Your task to perform on an android device: open a bookmark in the chrome app Image 0: 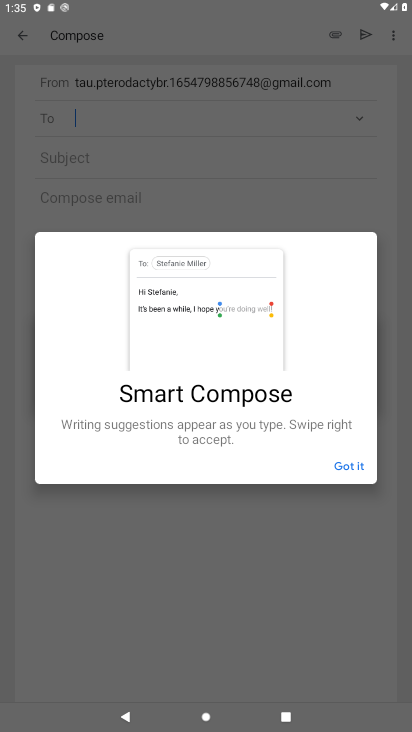
Step 0: press home button
Your task to perform on an android device: open a bookmark in the chrome app Image 1: 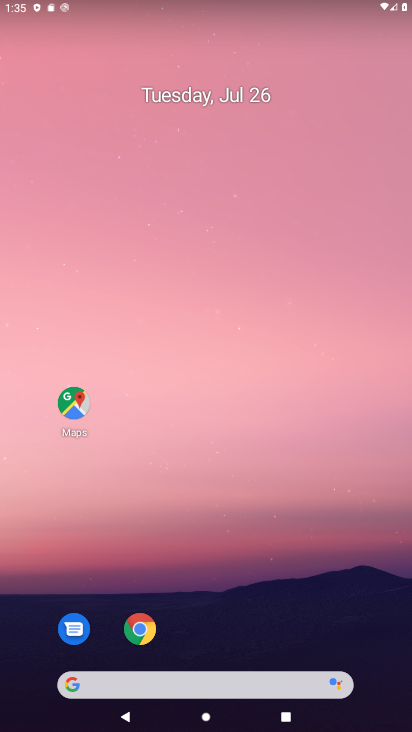
Step 1: click (143, 633)
Your task to perform on an android device: open a bookmark in the chrome app Image 2: 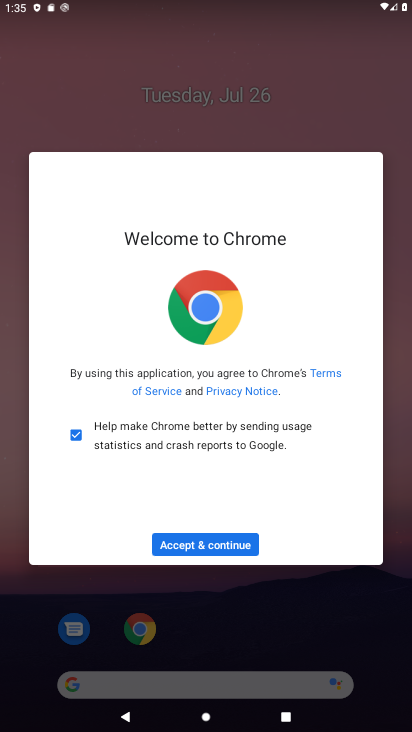
Step 2: click (203, 546)
Your task to perform on an android device: open a bookmark in the chrome app Image 3: 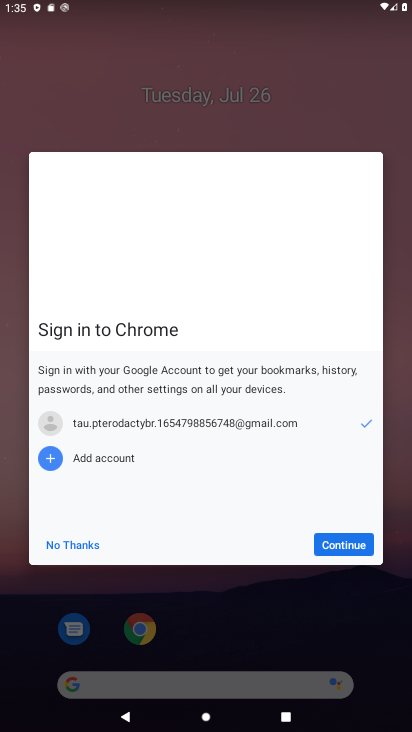
Step 3: click (343, 542)
Your task to perform on an android device: open a bookmark in the chrome app Image 4: 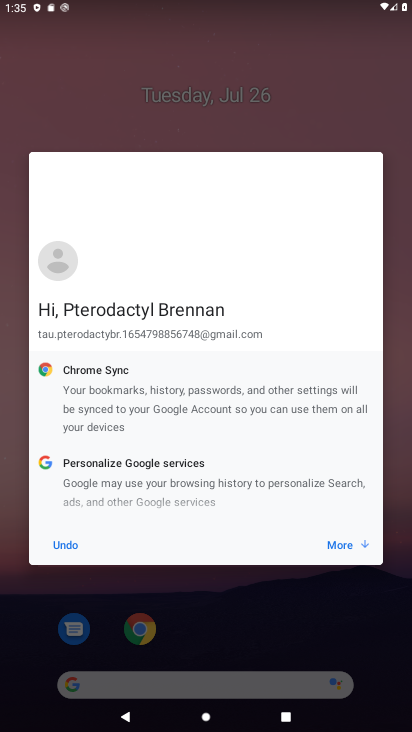
Step 4: click (335, 548)
Your task to perform on an android device: open a bookmark in the chrome app Image 5: 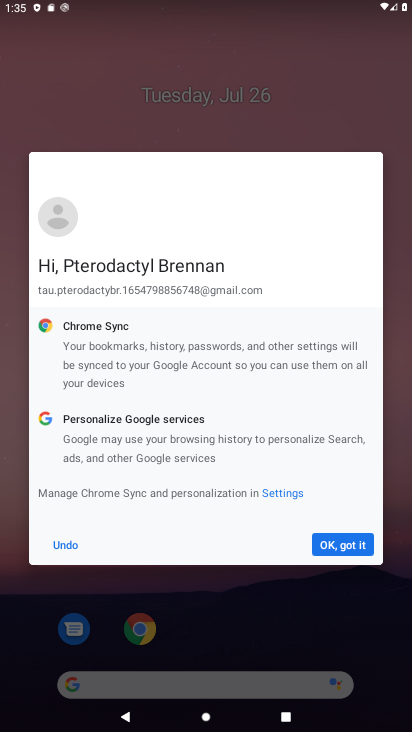
Step 5: click (342, 547)
Your task to perform on an android device: open a bookmark in the chrome app Image 6: 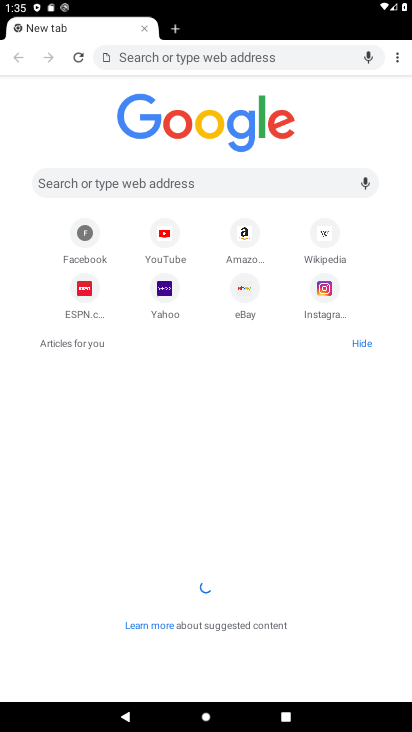
Step 6: click (398, 60)
Your task to perform on an android device: open a bookmark in the chrome app Image 7: 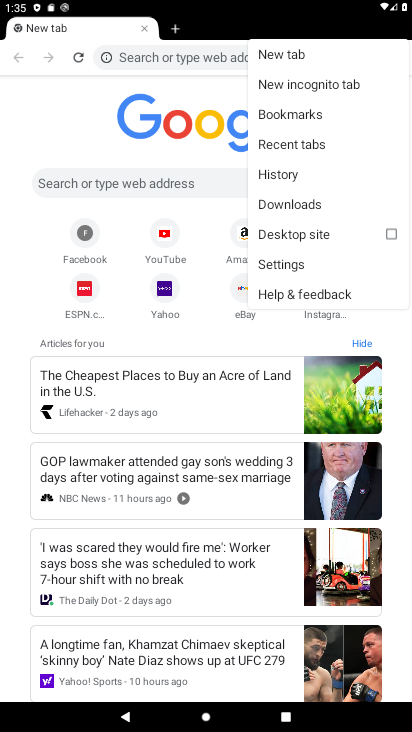
Step 7: click (280, 111)
Your task to perform on an android device: open a bookmark in the chrome app Image 8: 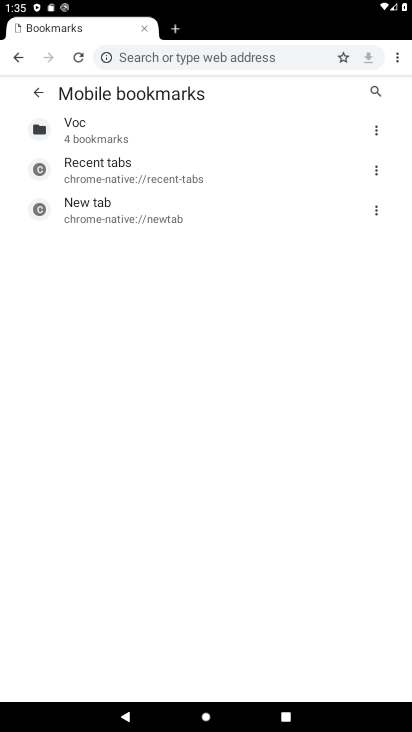
Step 8: task complete